Your task to perform on an android device: Go to Google Image 0: 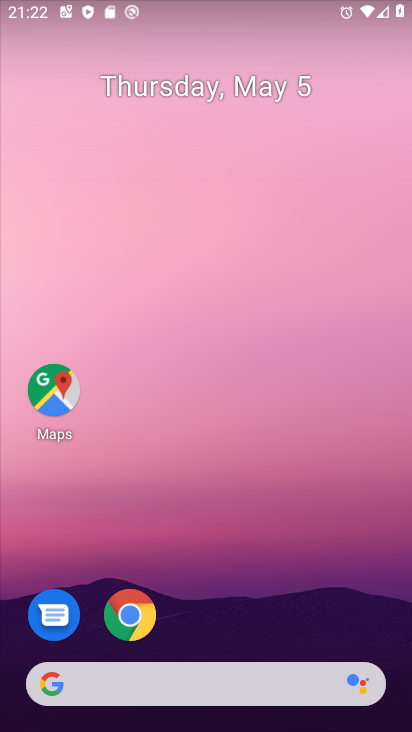
Step 0: click (194, 685)
Your task to perform on an android device: Go to Google Image 1: 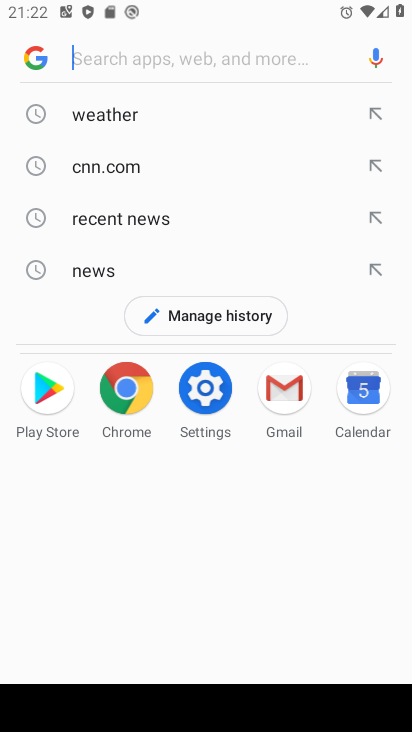
Step 1: click (34, 62)
Your task to perform on an android device: Go to Google Image 2: 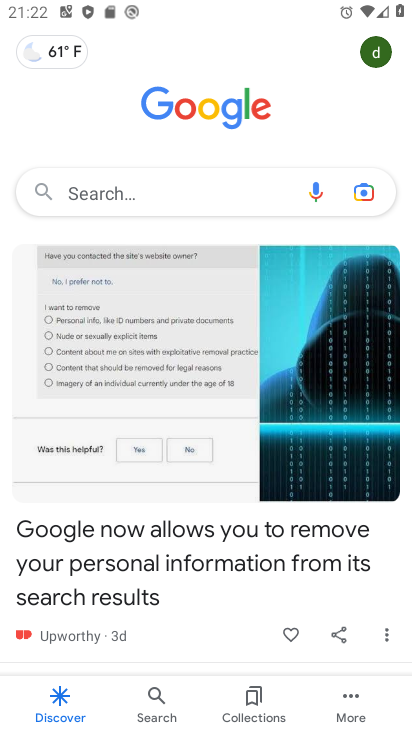
Step 2: task complete